Your task to perform on an android device: What's the weather? Image 0: 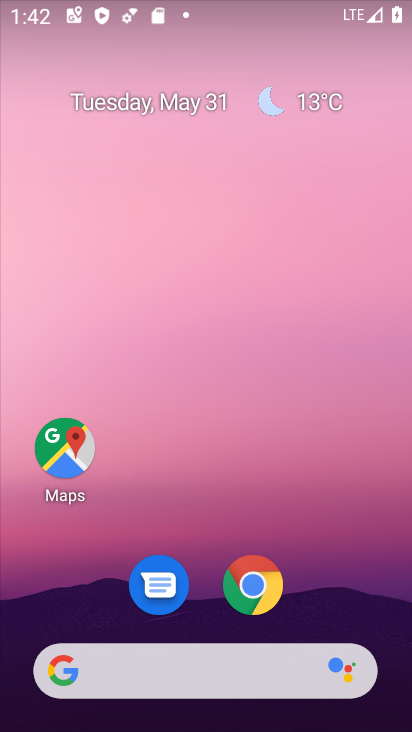
Step 0: click (208, 674)
Your task to perform on an android device: What's the weather? Image 1: 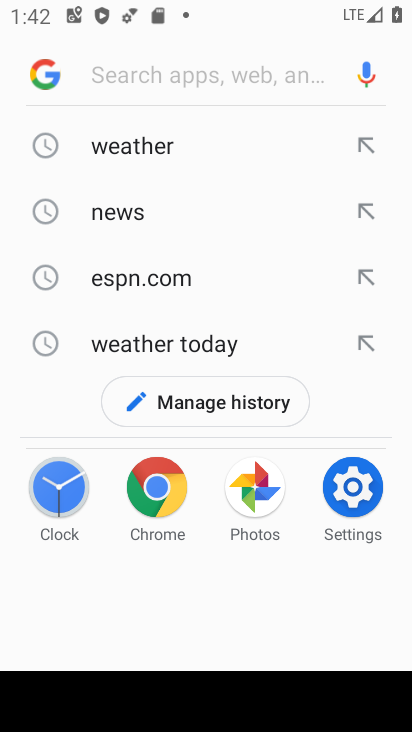
Step 1: click (119, 136)
Your task to perform on an android device: What's the weather? Image 2: 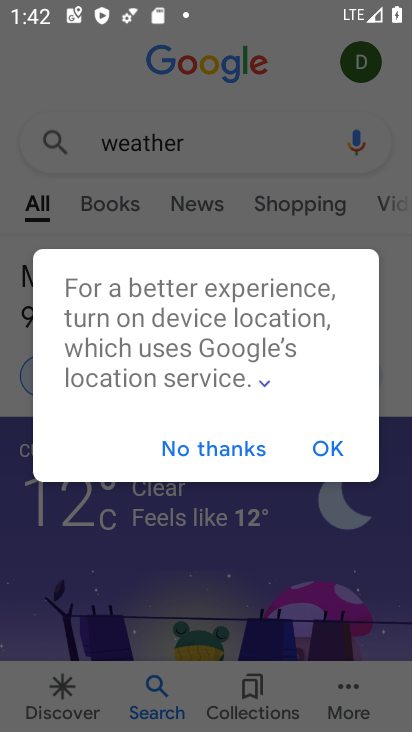
Step 2: click (323, 446)
Your task to perform on an android device: What's the weather? Image 3: 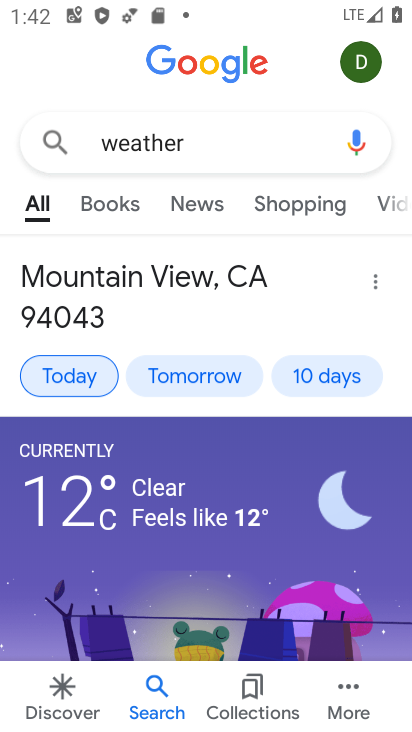
Step 3: click (89, 367)
Your task to perform on an android device: What's the weather? Image 4: 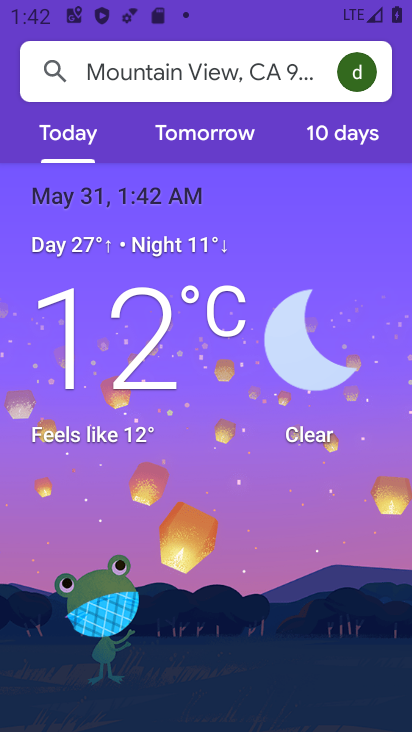
Step 4: task complete